Your task to perform on an android device: Look up the best rated video games on bestbuy.com Image 0: 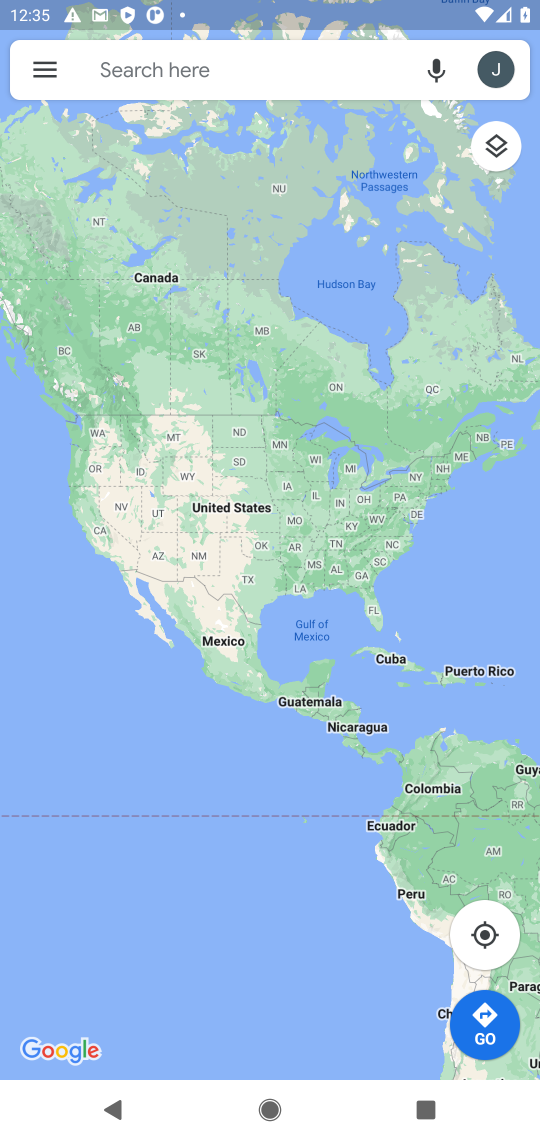
Step 0: press home button
Your task to perform on an android device: Look up the best rated video games on bestbuy.com Image 1: 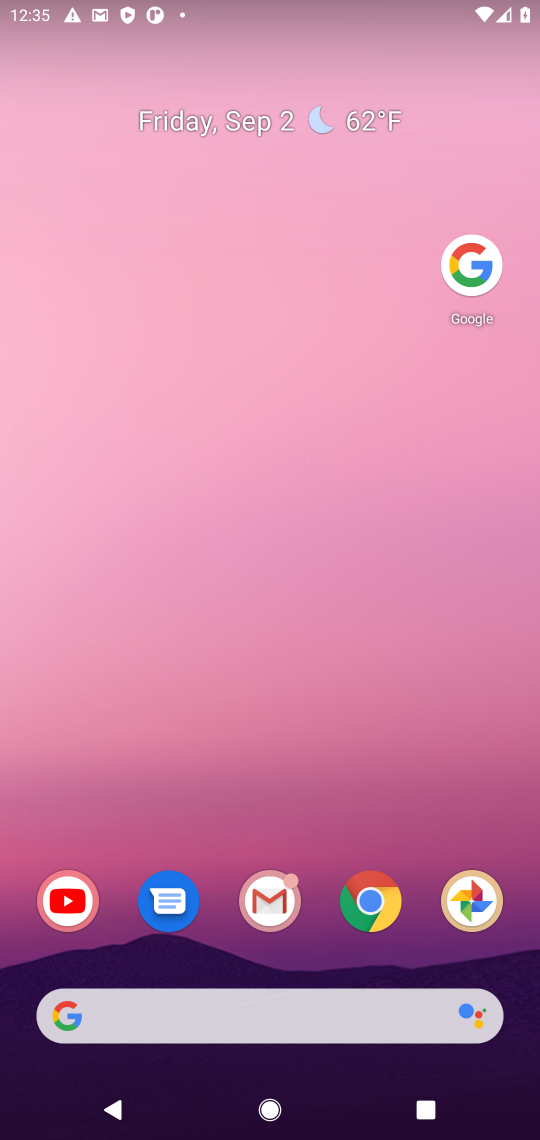
Step 1: click (219, 287)
Your task to perform on an android device: Look up the best rated video games on bestbuy.com Image 2: 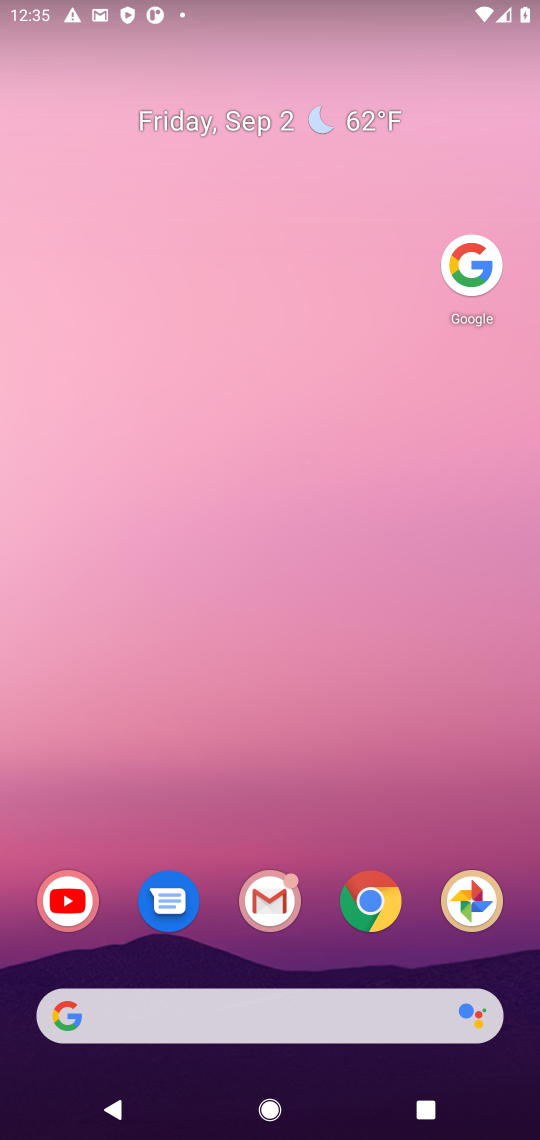
Step 2: click (469, 256)
Your task to perform on an android device: Look up the best rated video games on bestbuy.com Image 3: 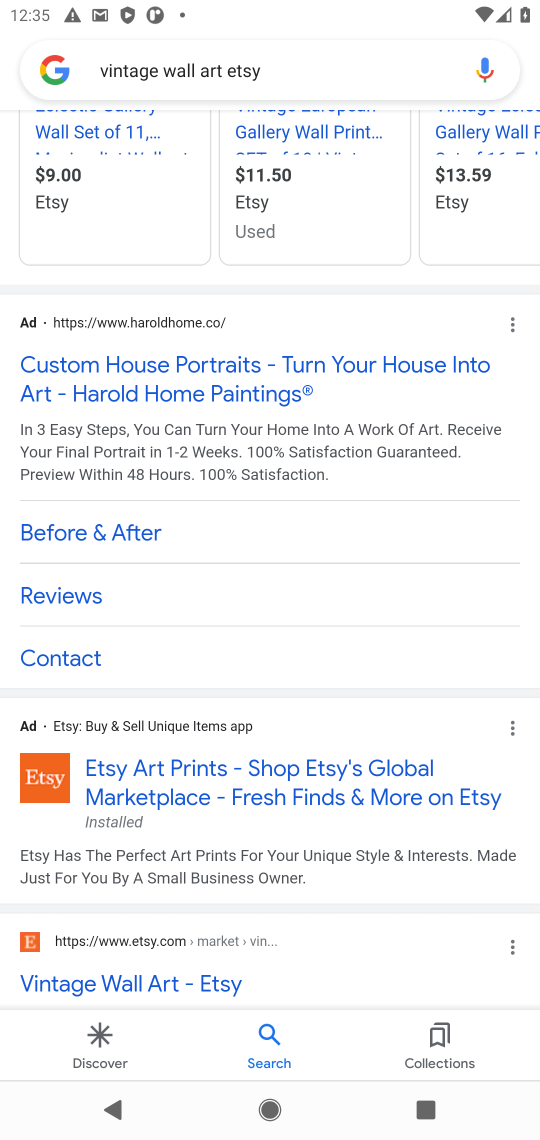
Step 3: click (337, 63)
Your task to perform on an android device: Look up the best rated video games on bestbuy.com Image 4: 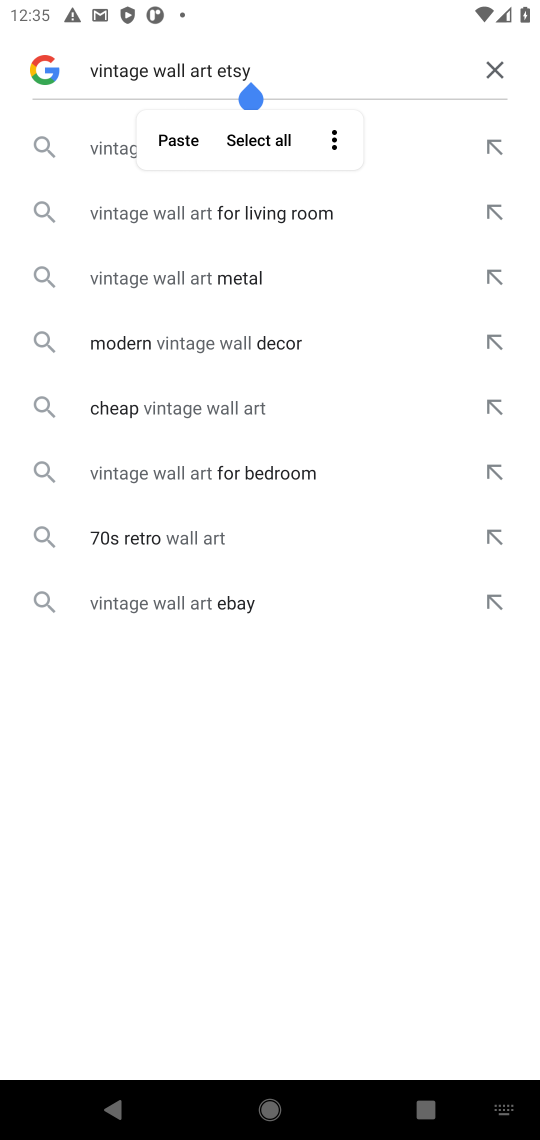
Step 4: click (487, 62)
Your task to perform on an android device: Look up the best rated video games on bestbuy.com Image 5: 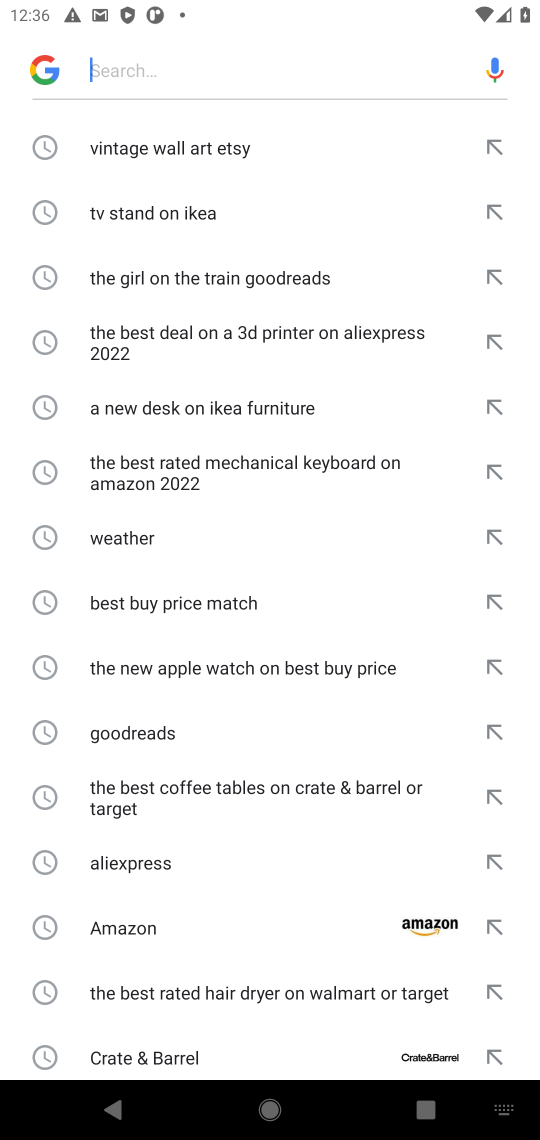
Step 5: click (251, 78)
Your task to perform on an android device: Look up the best rated video games on bestbuy.com Image 6: 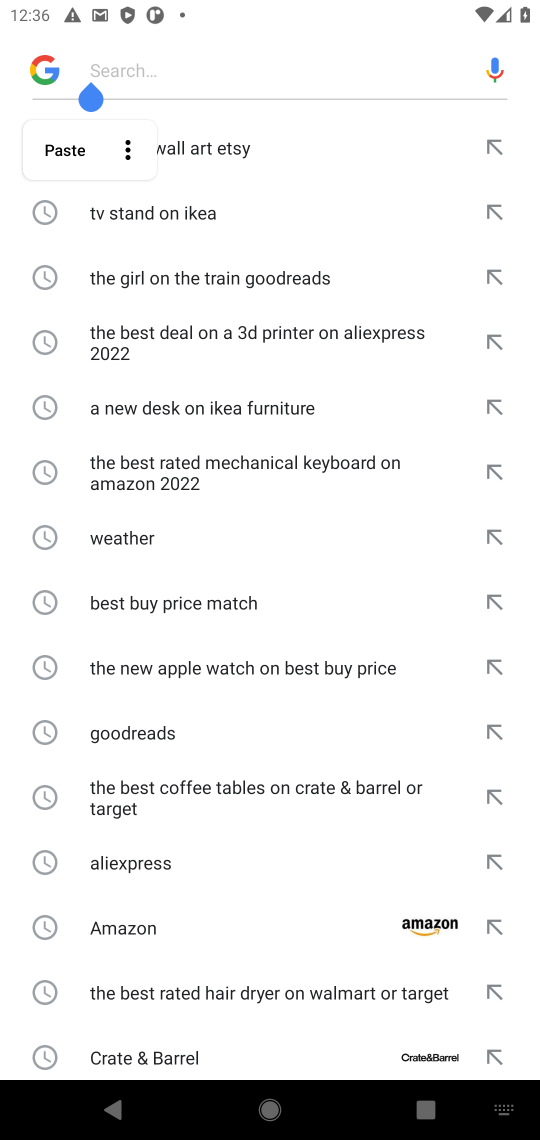
Step 6: type "the best rated video games on bestbuy.com "
Your task to perform on an android device: Look up the best rated video games on bestbuy.com Image 7: 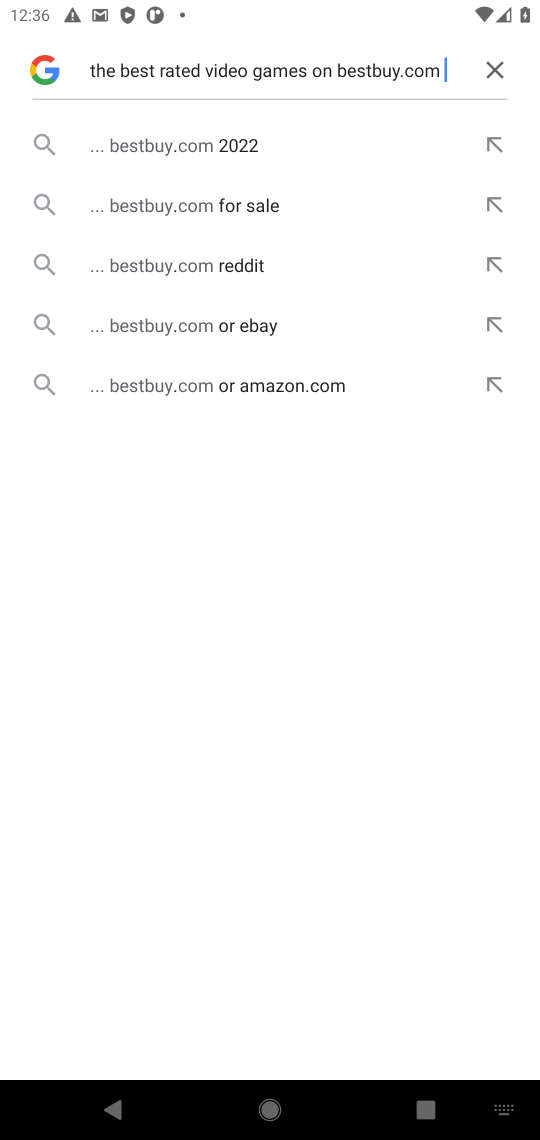
Step 7: click (206, 144)
Your task to perform on an android device: Look up the best rated video games on bestbuy.com Image 8: 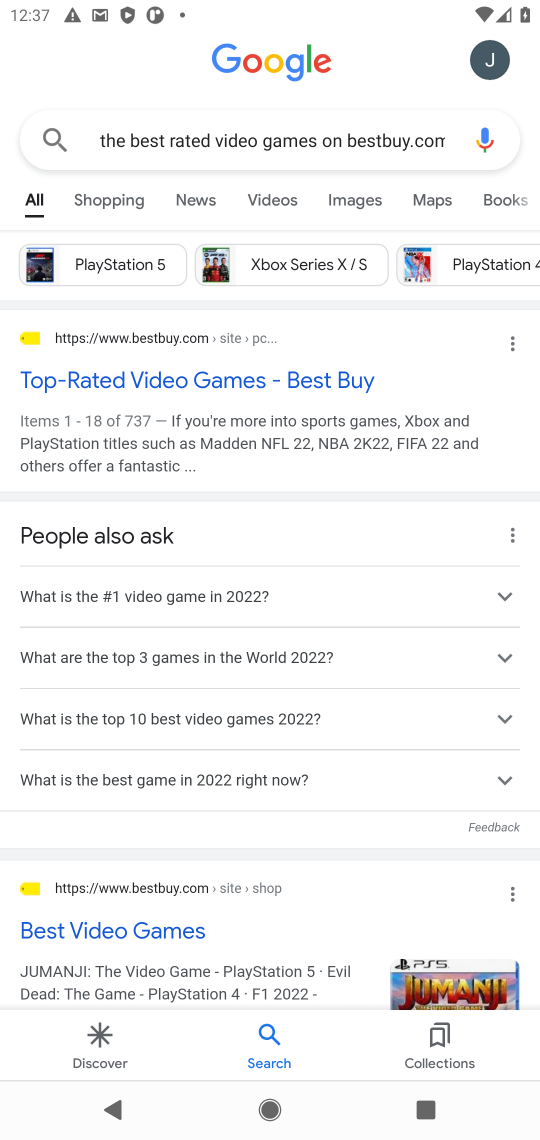
Step 8: click (230, 376)
Your task to perform on an android device: Look up the best rated video games on bestbuy.com Image 9: 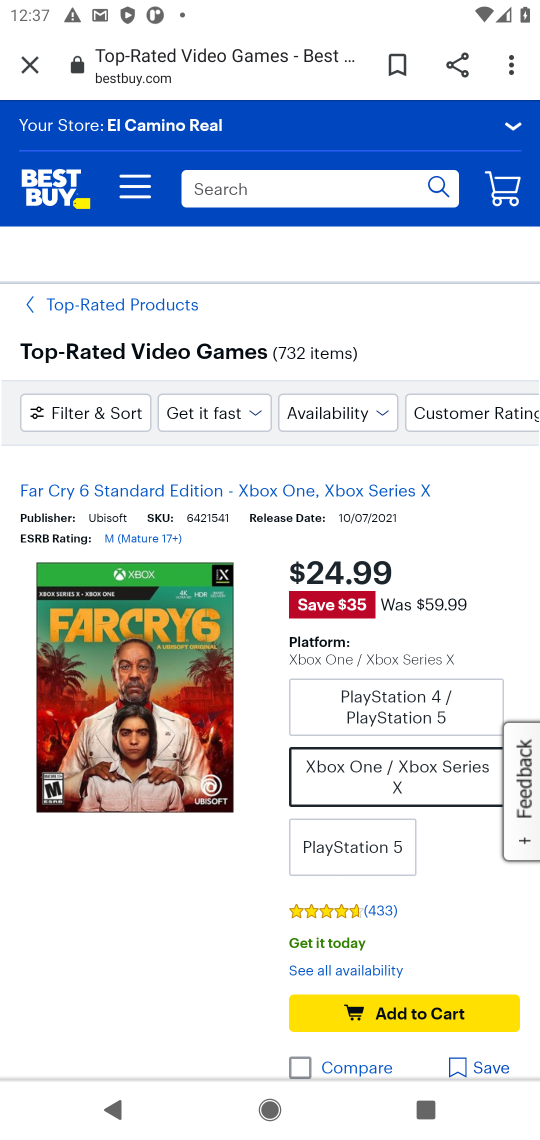
Step 9: click (273, 175)
Your task to perform on an android device: Look up the best rated video games on bestbuy.com Image 10: 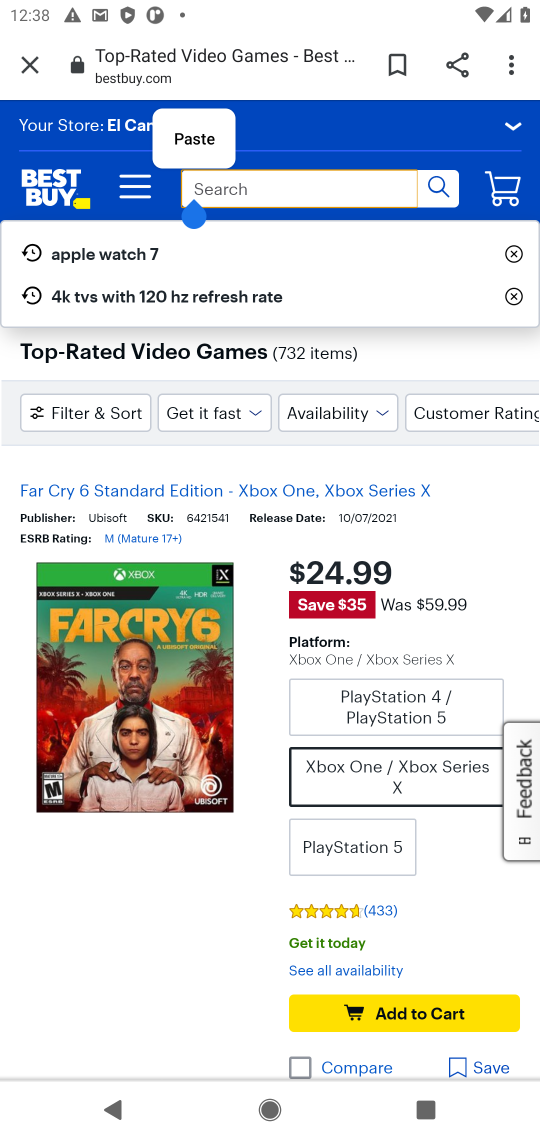
Step 10: click (272, 190)
Your task to perform on an android device: Look up the best rated video games on bestbuy.com Image 11: 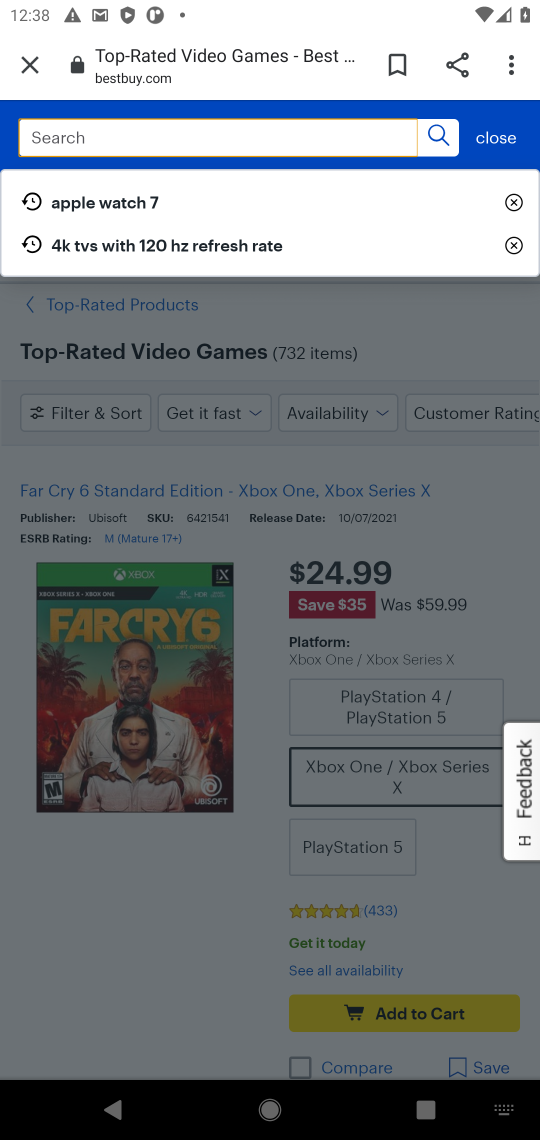
Step 11: type "the best rated video games  "
Your task to perform on an android device: Look up the best rated video games on bestbuy.com Image 12: 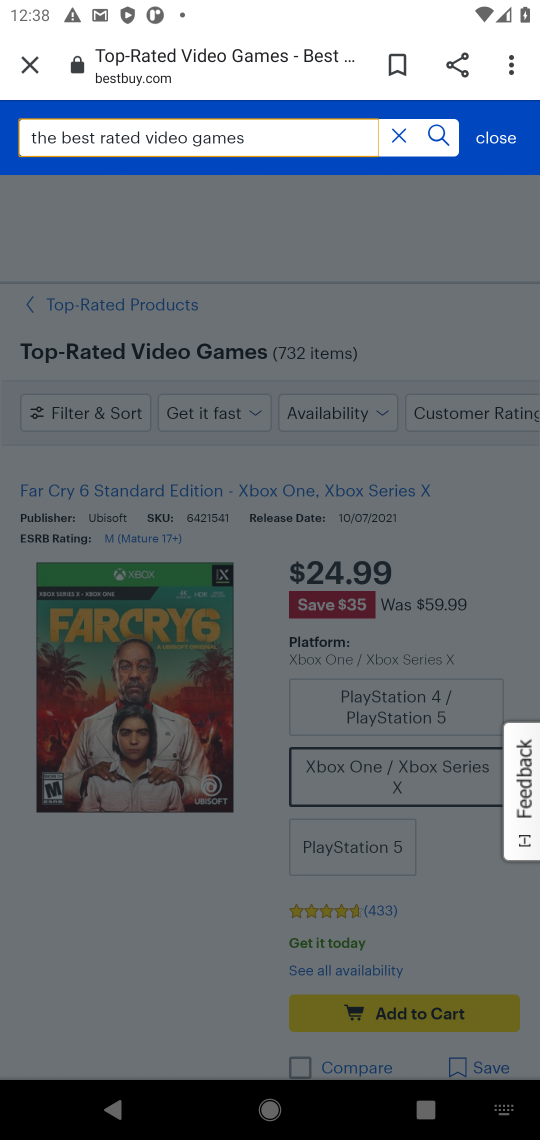
Step 12: click (427, 124)
Your task to perform on an android device: Look up the best rated video games on bestbuy.com Image 13: 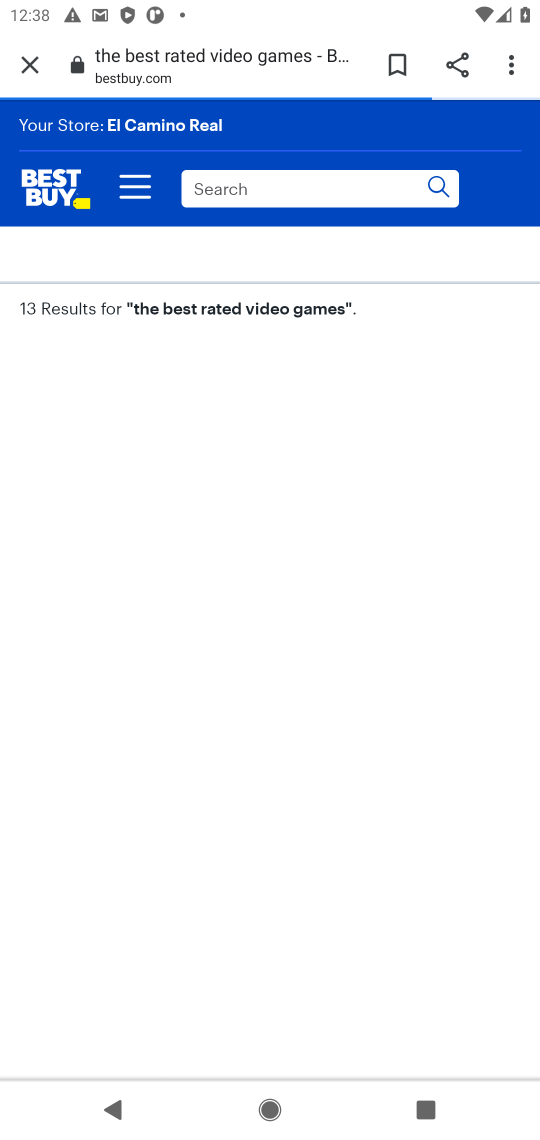
Step 13: click (436, 127)
Your task to perform on an android device: Look up the best rated video games on bestbuy.com Image 14: 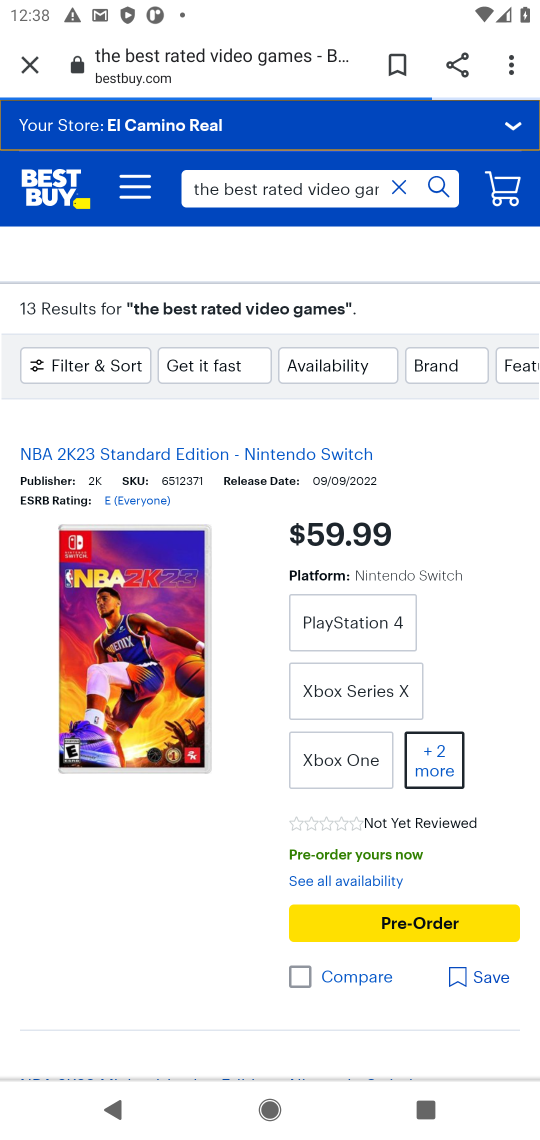
Step 14: click (248, 299)
Your task to perform on an android device: Look up the best rated video games on bestbuy.com Image 15: 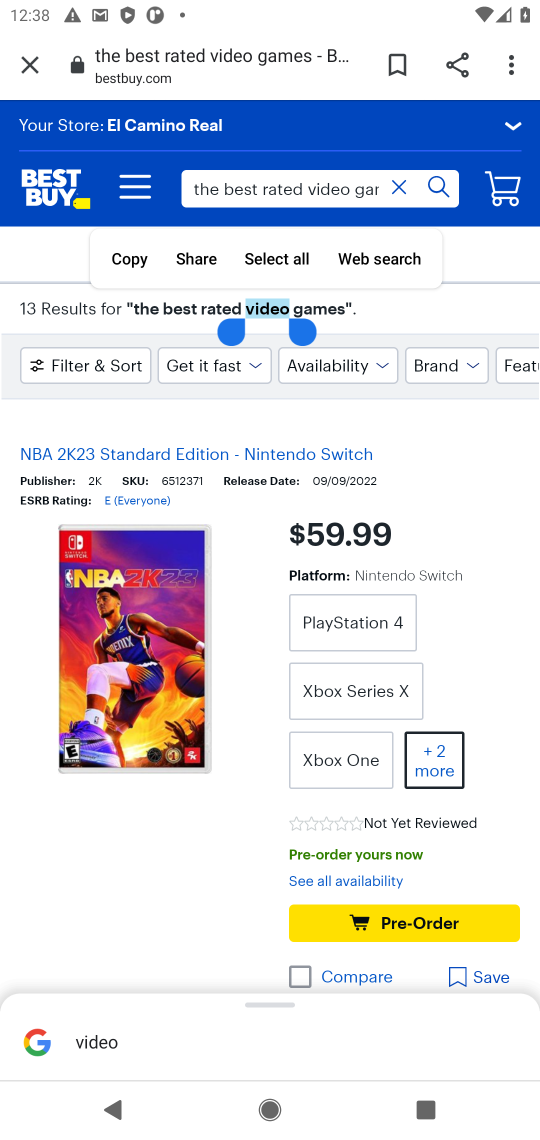
Step 15: click (418, 319)
Your task to perform on an android device: Look up the best rated video games on bestbuy.com Image 16: 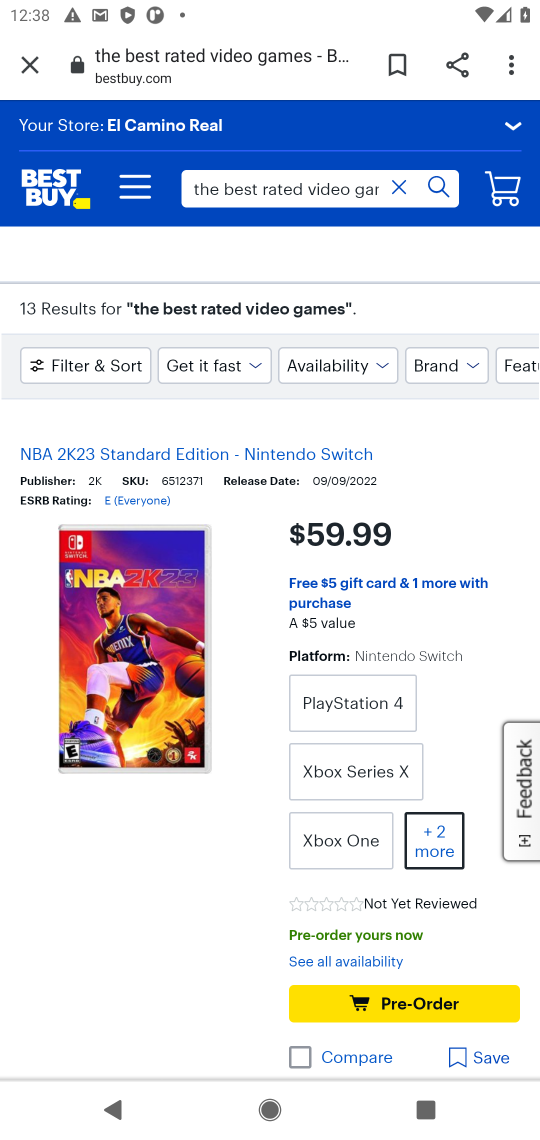
Step 16: task complete